Your task to perform on an android device: set the timer Image 0: 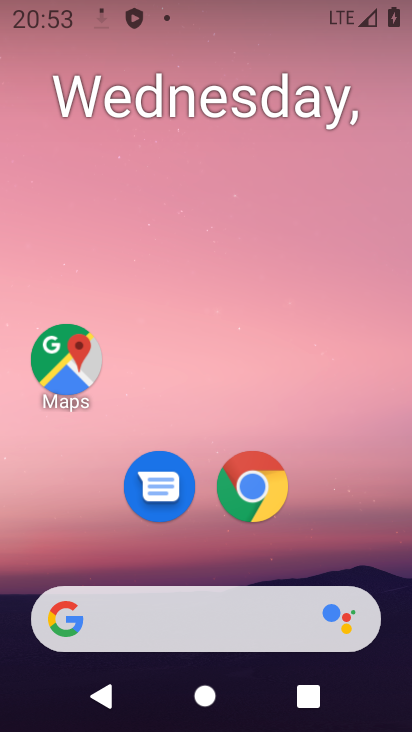
Step 0: drag from (186, 576) to (265, 34)
Your task to perform on an android device: set the timer Image 1: 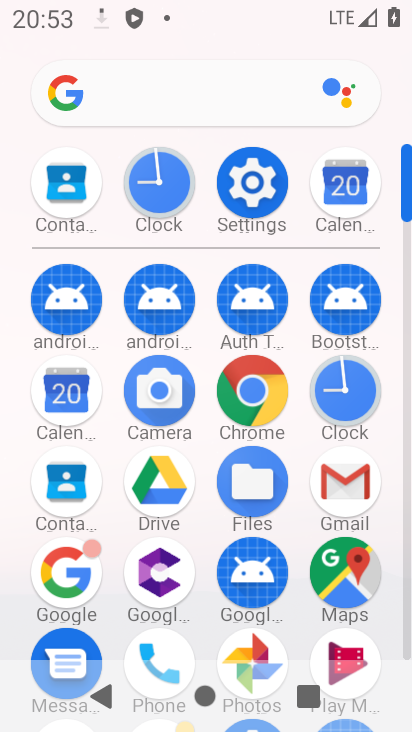
Step 1: click (344, 384)
Your task to perform on an android device: set the timer Image 2: 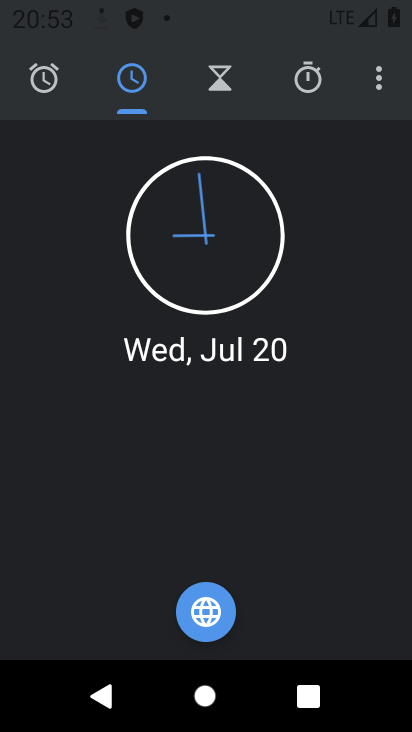
Step 2: click (319, 80)
Your task to perform on an android device: set the timer Image 3: 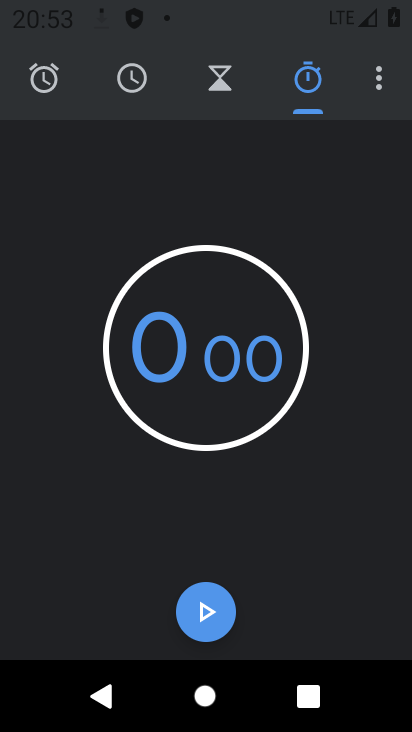
Step 3: click (204, 88)
Your task to perform on an android device: set the timer Image 4: 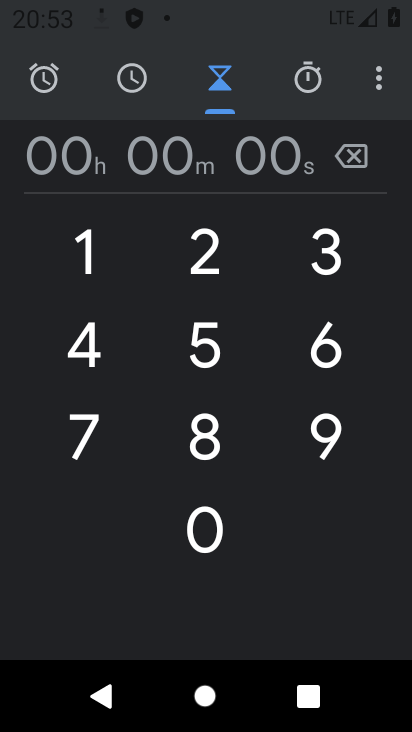
Step 4: click (208, 262)
Your task to perform on an android device: set the timer Image 5: 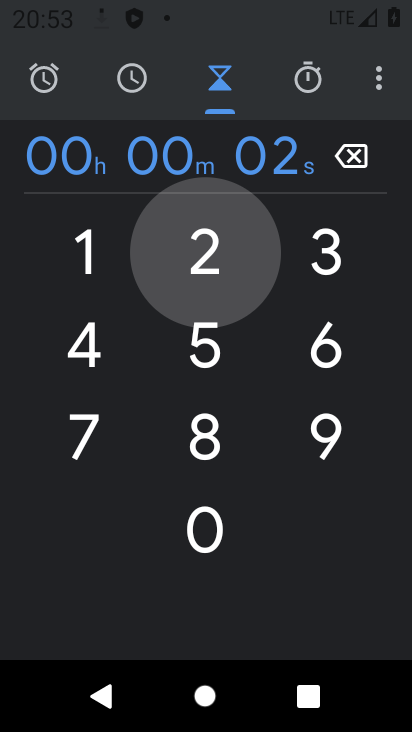
Step 5: click (346, 238)
Your task to perform on an android device: set the timer Image 6: 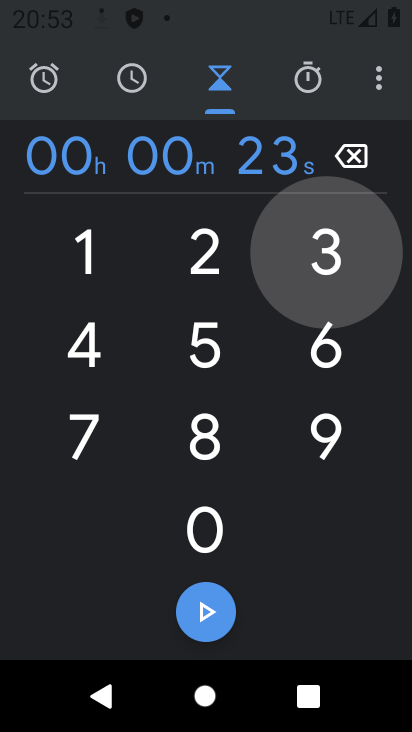
Step 6: click (190, 362)
Your task to perform on an android device: set the timer Image 7: 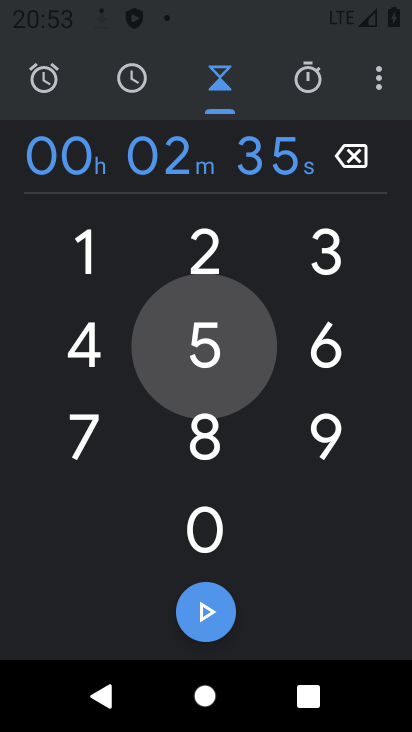
Step 7: click (69, 354)
Your task to perform on an android device: set the timer Image 8: 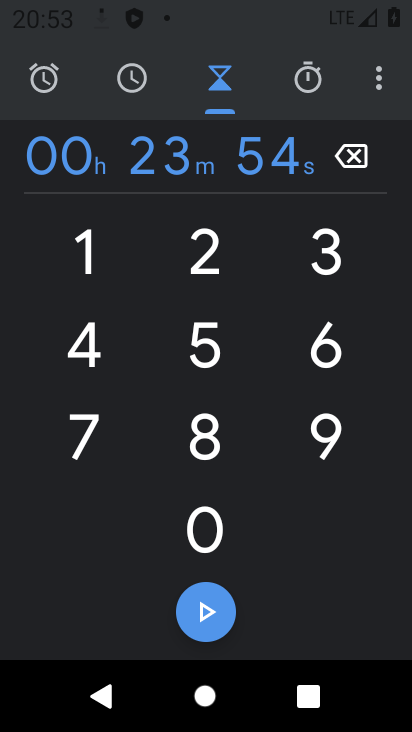
Step 8: click (84, 250)
Your task to perform on an android device: set the timer Image 9: 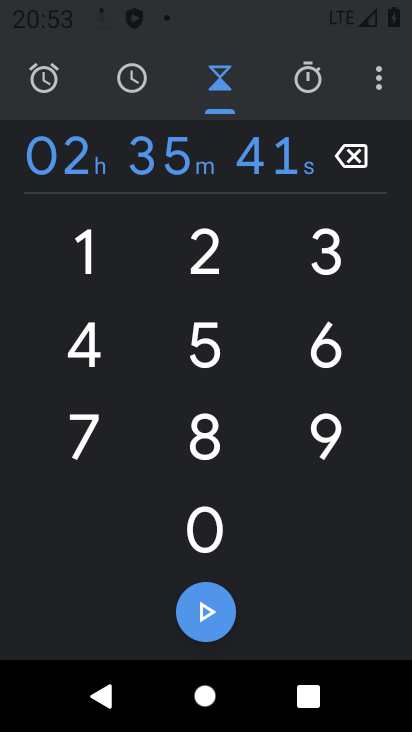
Step 9: task complete